Your task to perform on an android device: Is it going to rain today? Image 0: 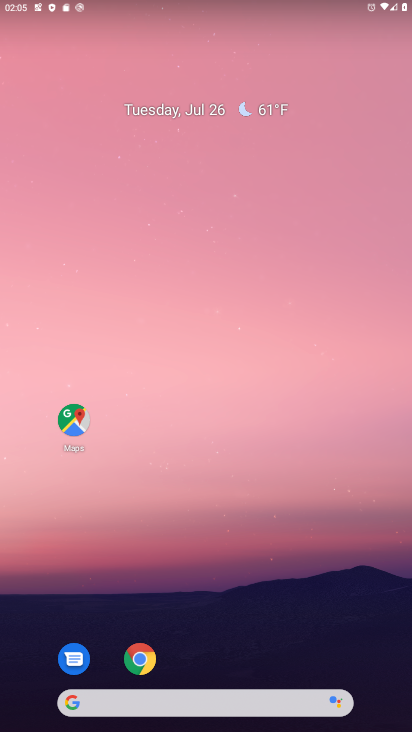
Step 0: drag from (270, 571) to (240, 59)
Your task to perform on an android device: Is it going to rain today? Image 1: 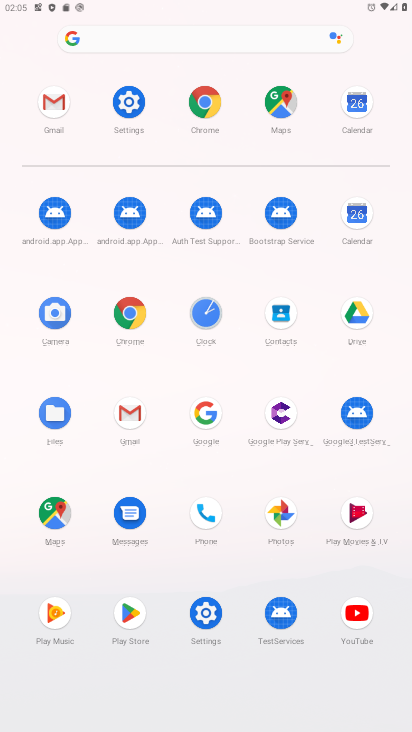
Step 1: click (208, 99)
Your task to perform on an android device: Is it going to rain today? Image 2: 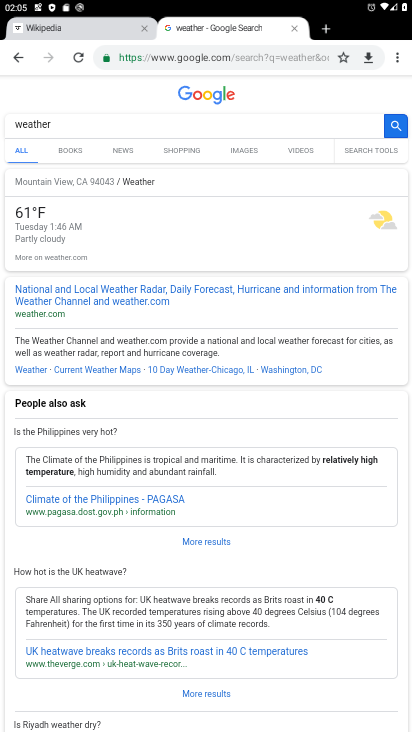
Step 2: task complete